Your task to perform on an android device: change your default location settings in chrome Image 0: 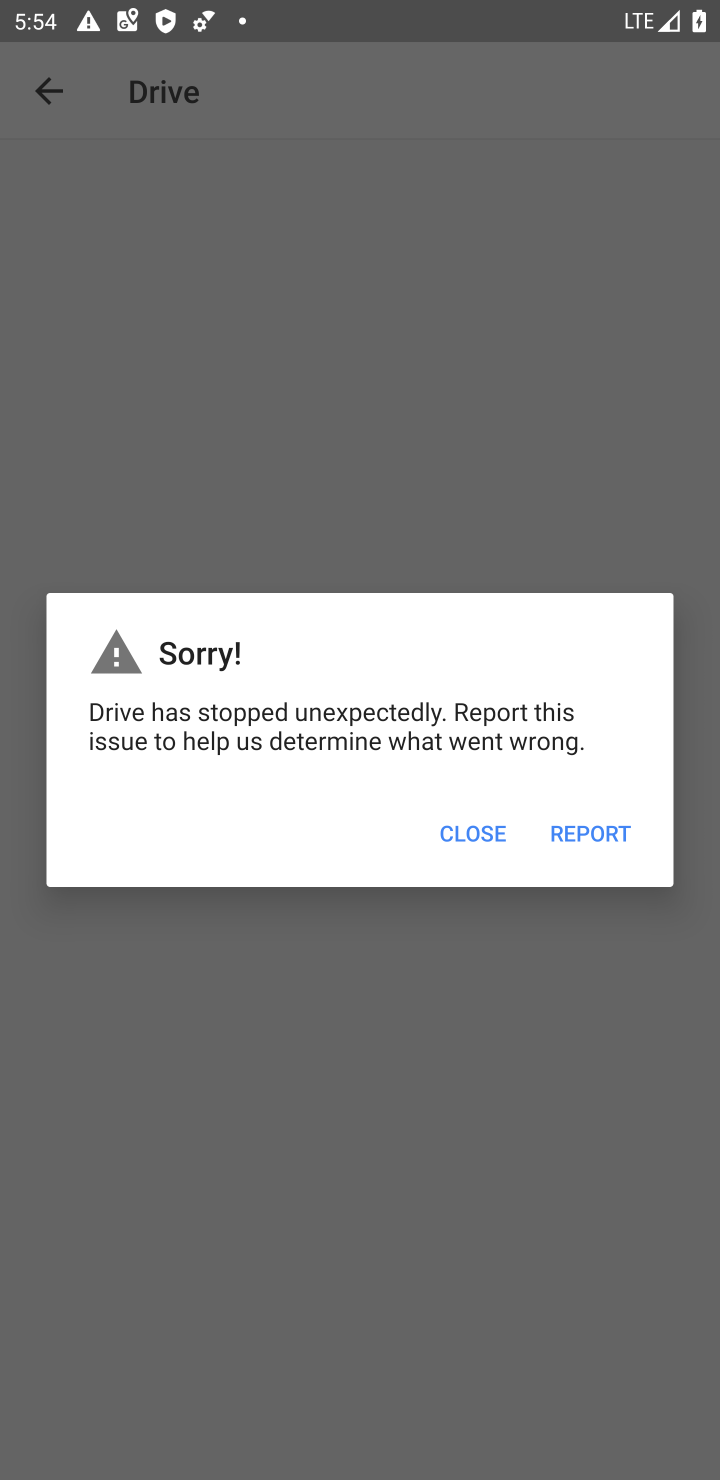
Step 0: press home button
Your task to perform on an android device: change your default location settings in chrome Image 1: 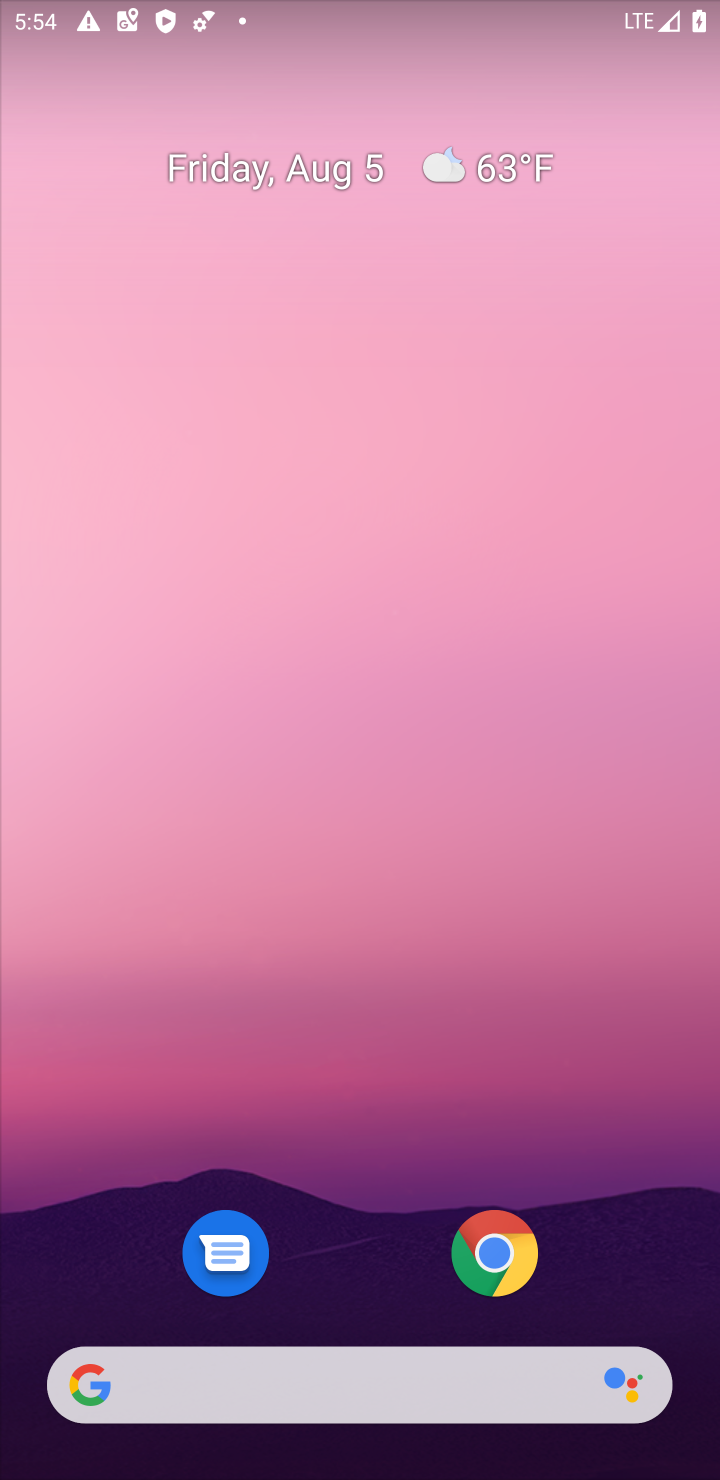
Step 1: click (492, 1247)
Your task to perform on an android device: change your default location settings in chrome Image 2: 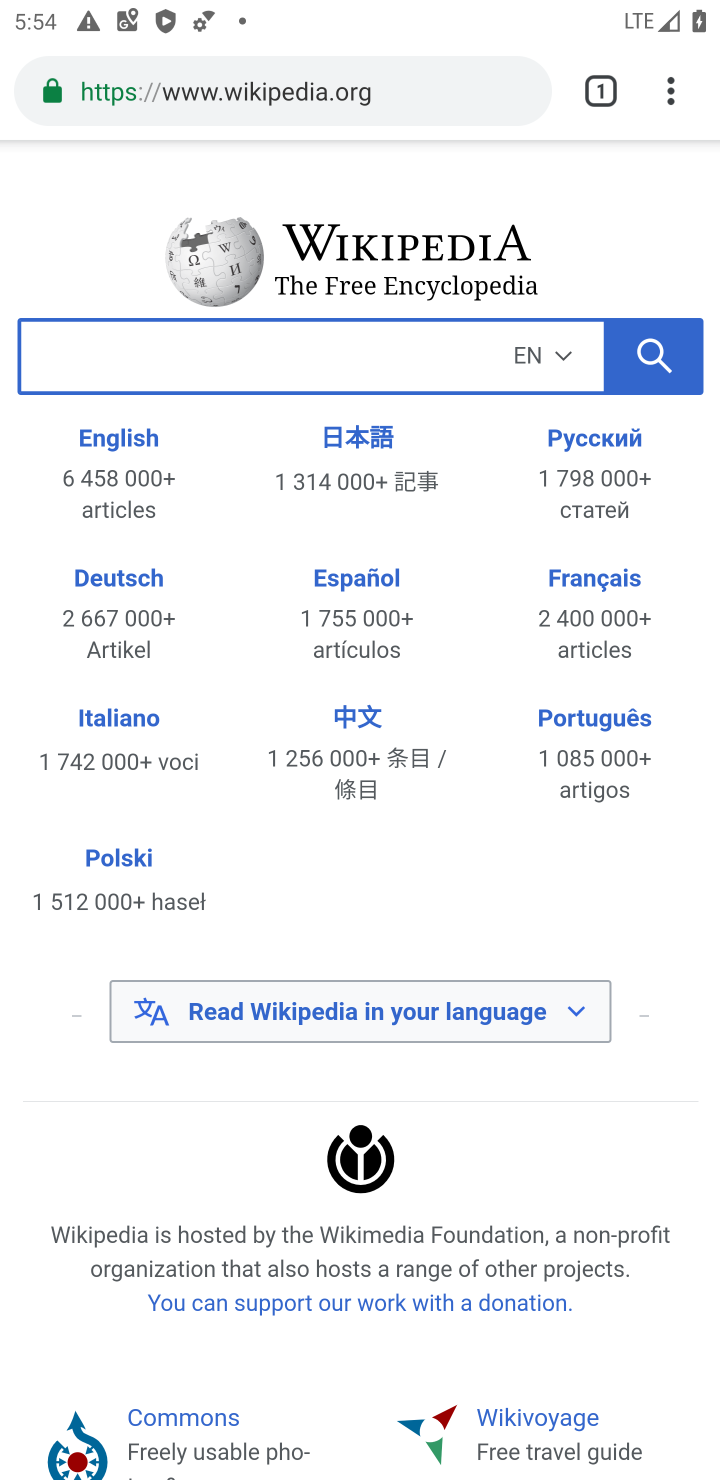
Step 2: click (676, 75)
Your task to perform on an android device: change your default location settings in chrome Image 3: 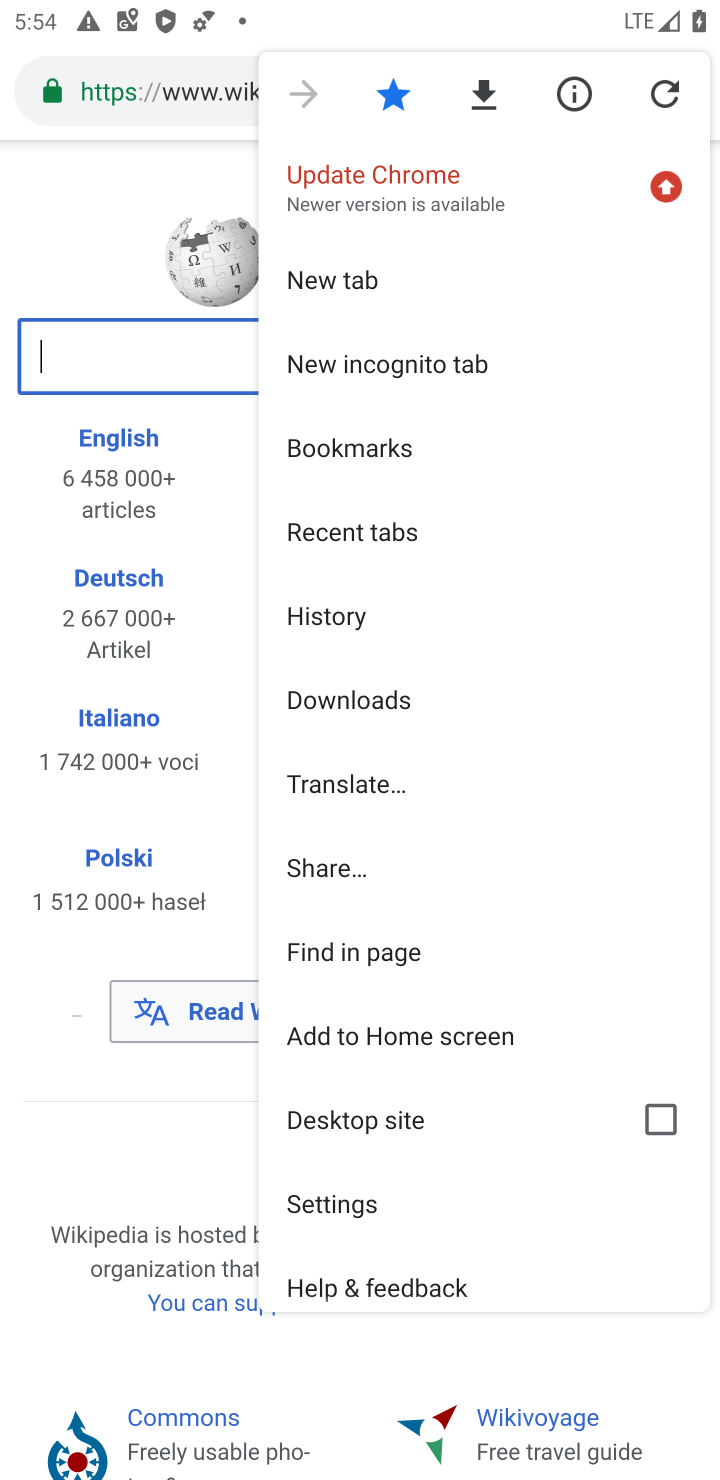
Step 3: click (376, 1195)
Your task to perform on an android device: change your default location settings in chrome Image 4: 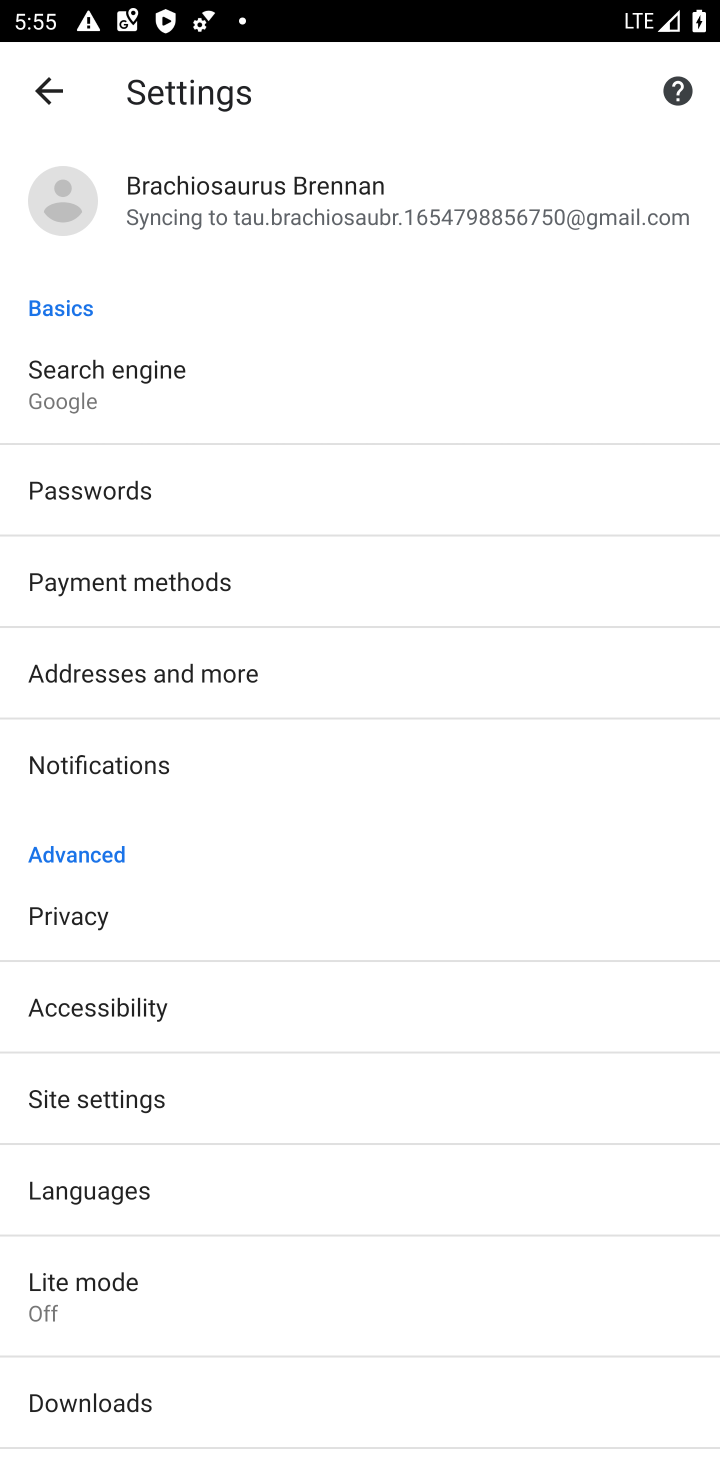
Step 4: click (190, 1122)
Your task to perform on an android device: change your default location settings in chrome Image 5: 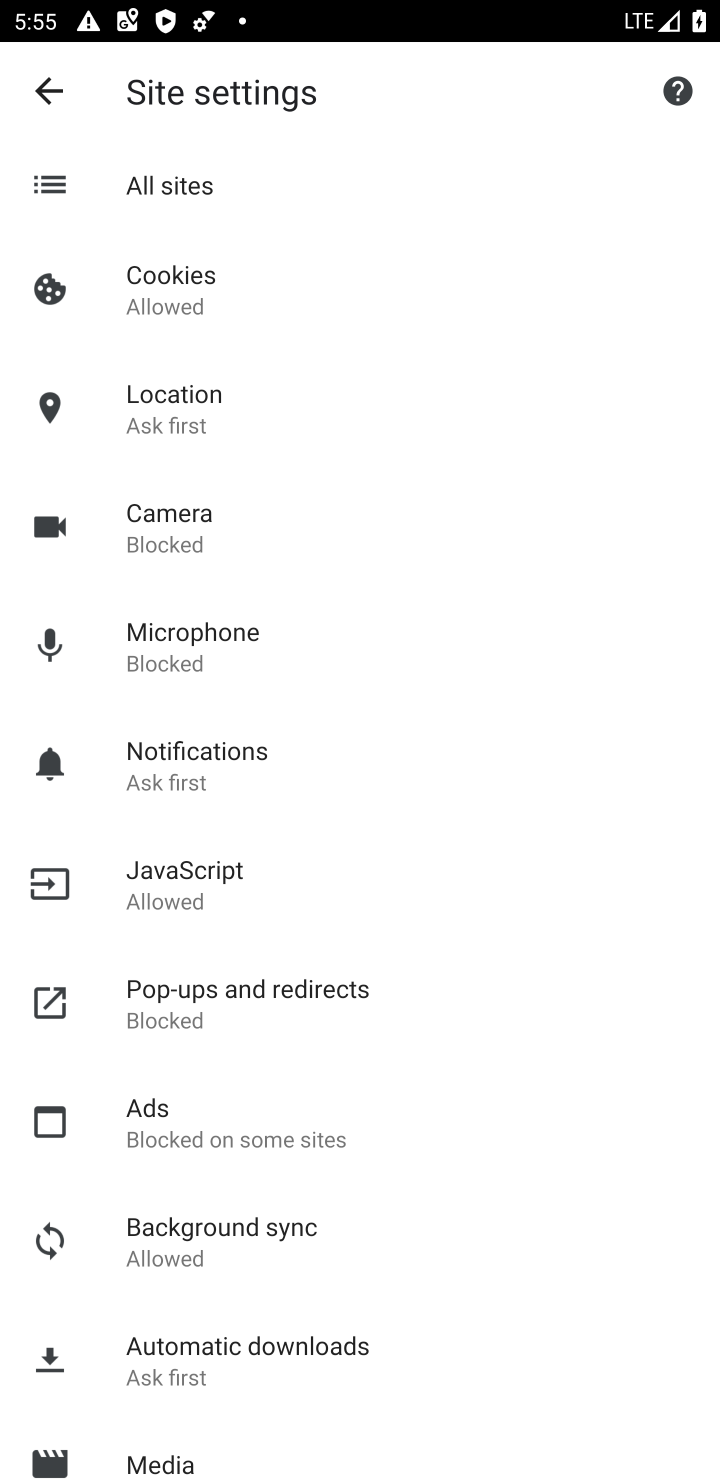
Step 5: click (169, 419)
Your task to perform on an android device: change your default location settings in chrome Image 6: 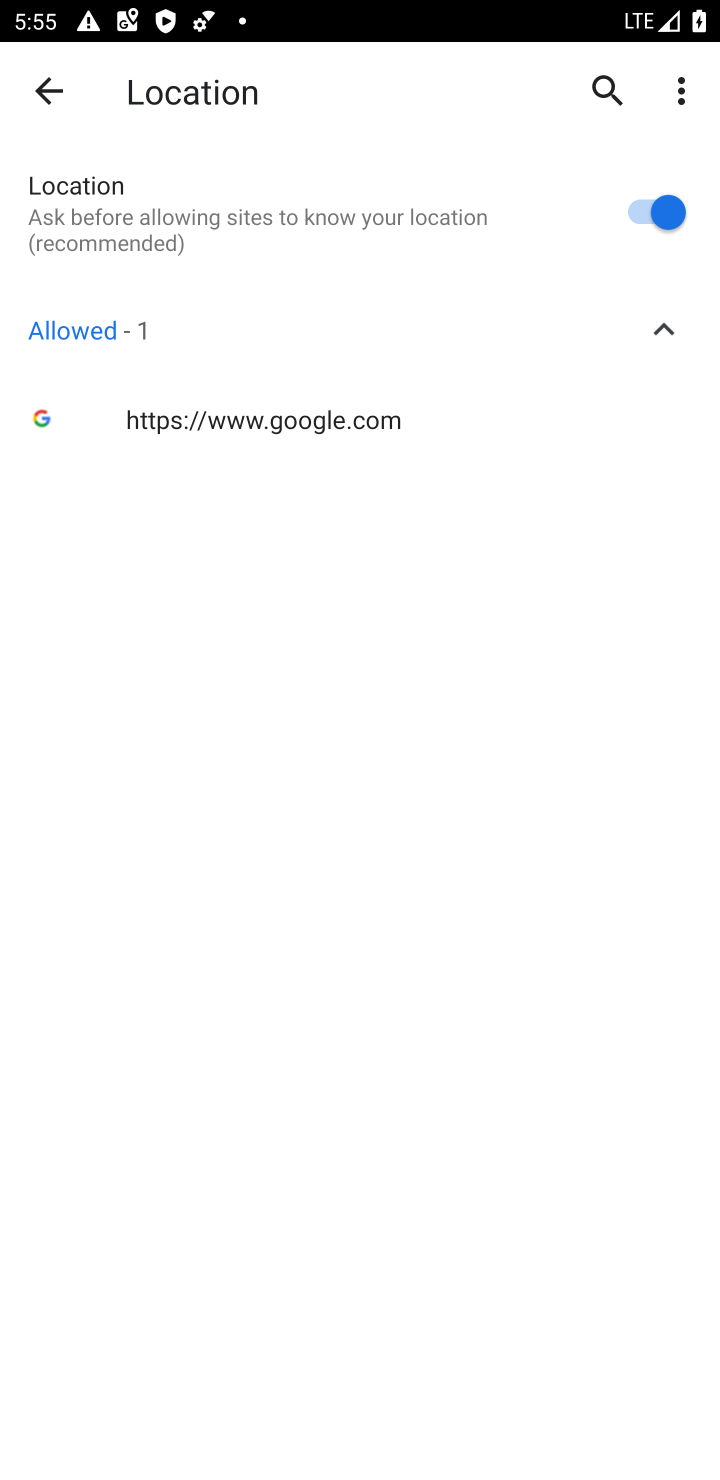
Step 6: click (647, 204)
Your task to perform on an android device: change your default location settings in chrome Image 7: 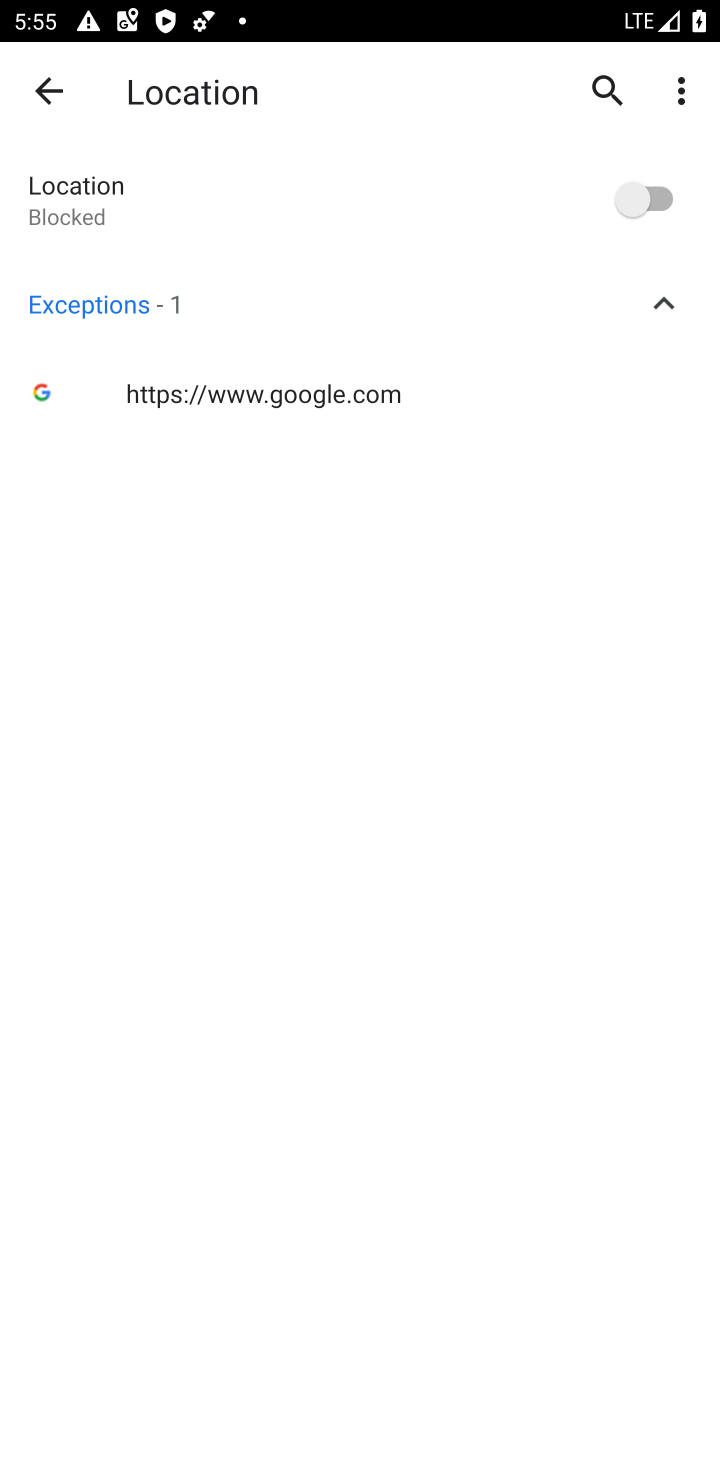
Step 7: task complete